Your task to perform on an android device: Do I have any events today? Image 0: 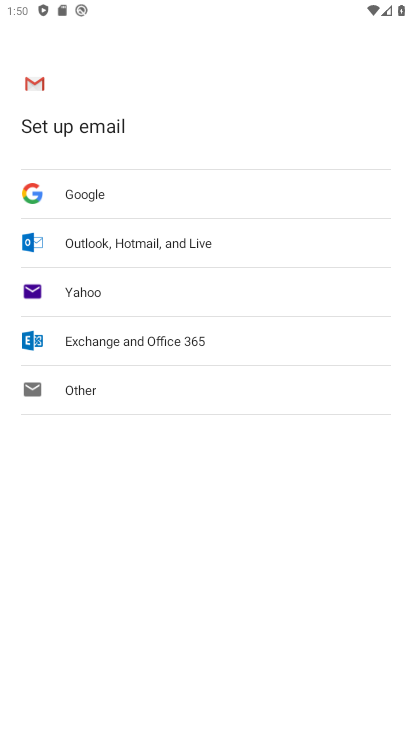
Step 0: press home button
Your task to perform on an android device: Do I have any events today? Image 1: 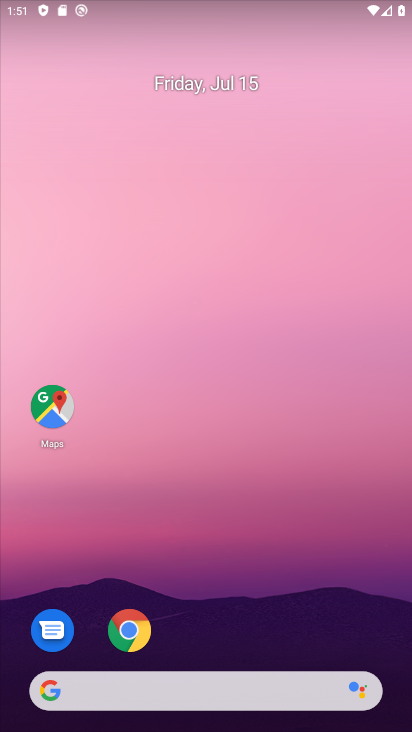
Step 1: drag from (338, 601) to (361, 303)
Your task to perform on an android device: Do I have any events today? Image 2: 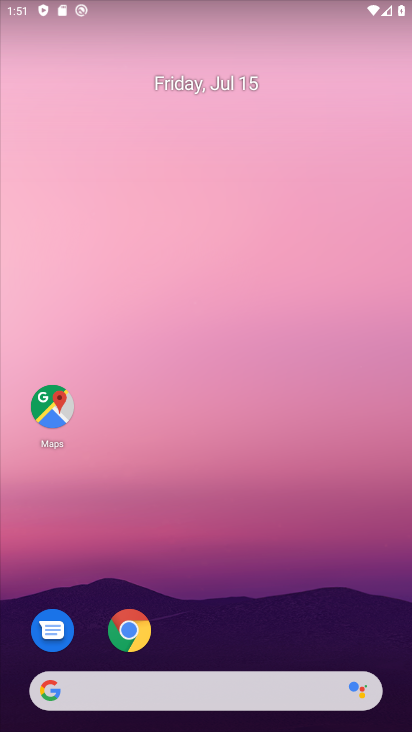
Step 2: drag from (330, 590) to (348, 58)
Your task to perform on an android device: Do I have any events today? Image 3: 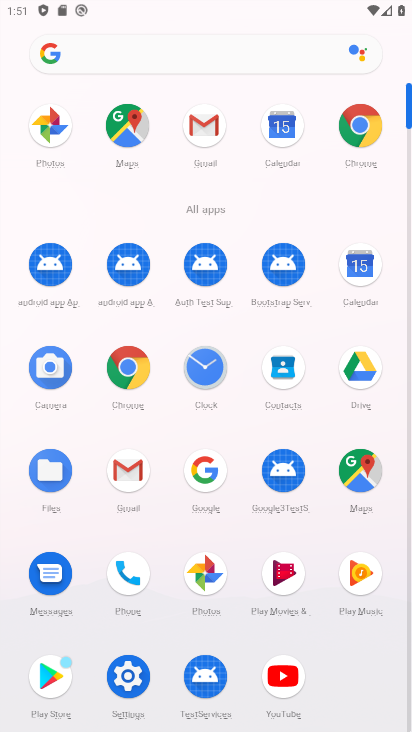
Step 3: click (367, 285)
Your task to perform on an android device: Do I have any events today? Image 4: 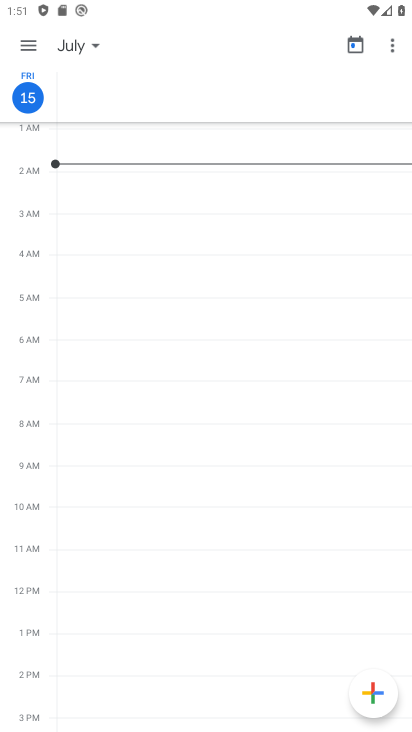
Step 4: click (27, 44)
Your task to perform on an android device: Do I have any events today? Image 5: 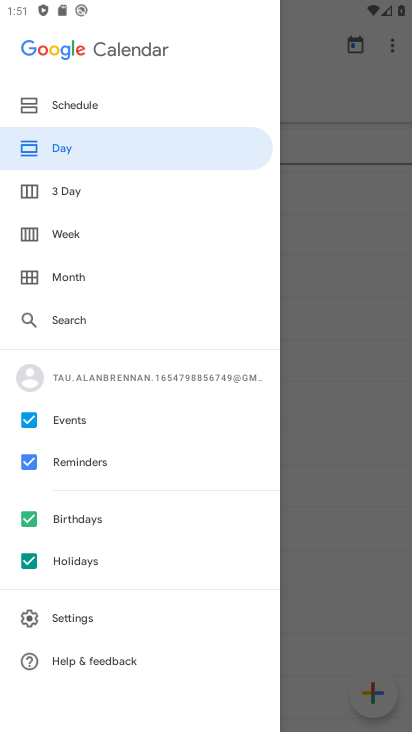
Step 5: click (86, 97)
Your task to perform on an android device: Do I have any events today? Image 6: 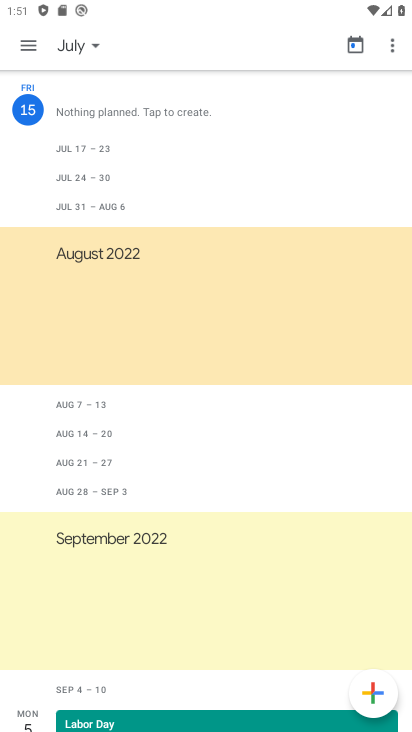
Step 6: click (97, 43)
Your task to perform on an android device: Do I have any events today? Image 7: 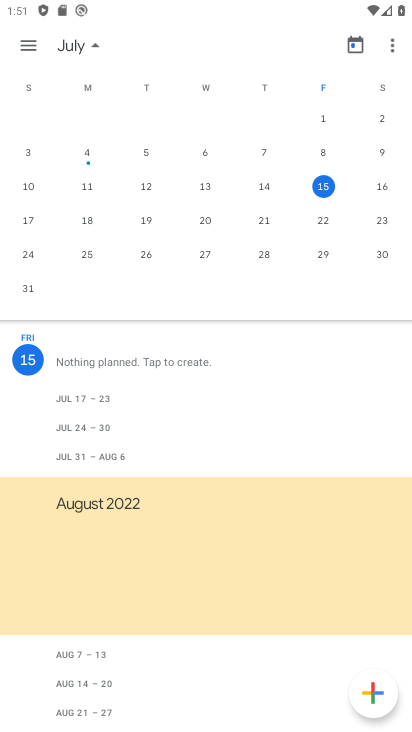
Step 7: click (327, 182)
Your task to perform on an android device: Do I have any events today? Image 8: 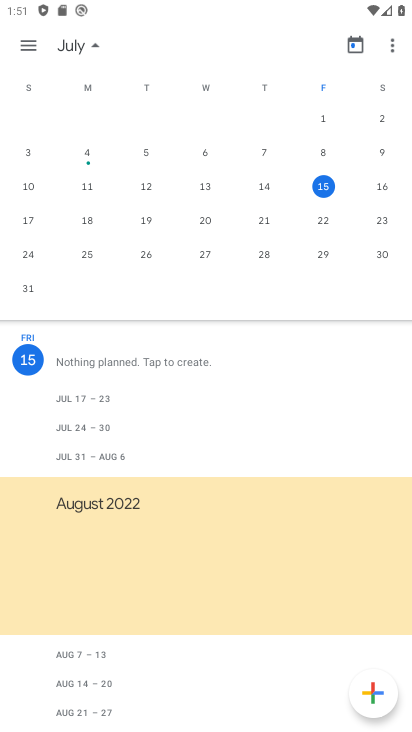
Step 8: task complete